Your task to perform on an android device: snooze an email in the gmail app Image 0: 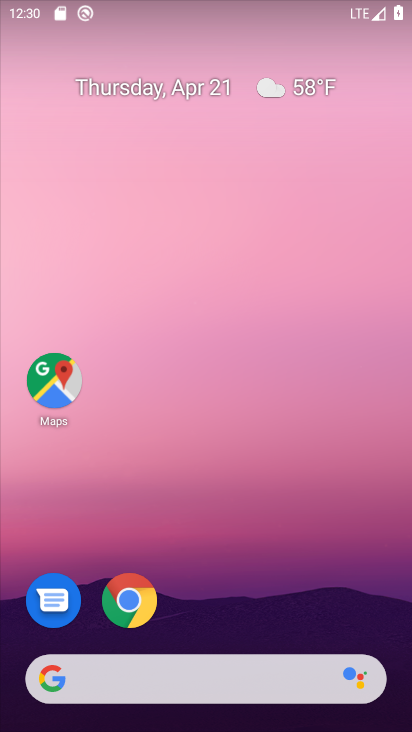
Step 0: drag from (298, 586) to (334, 47)
Your task to perform on an android device: snooze an email in the gmail app Image 1: 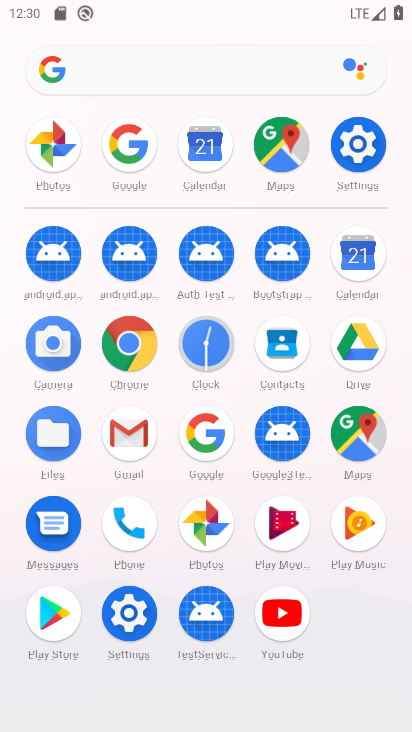
Step 1: click (139, 434)
Your task to perform on an android device: snooze an email in the gmail app Image 2: 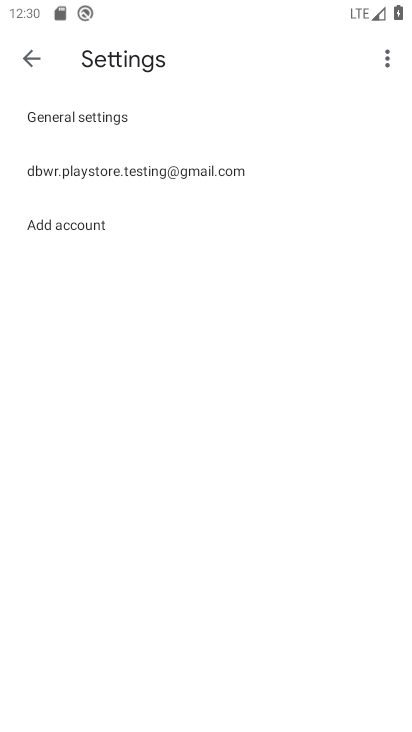
Step 2: click (31, 53)
Your task to perform on an android device: snooze an email in the gmail app Image 3: 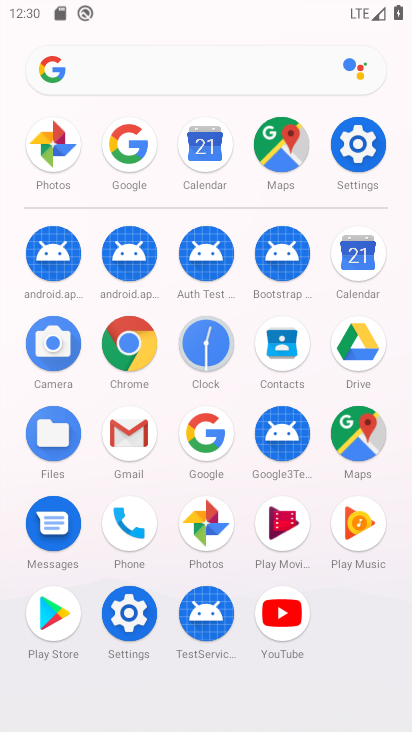
Step 3: click (136, 428)
Your task to perform on an android device: snooze an email in the gmail app Image 4: 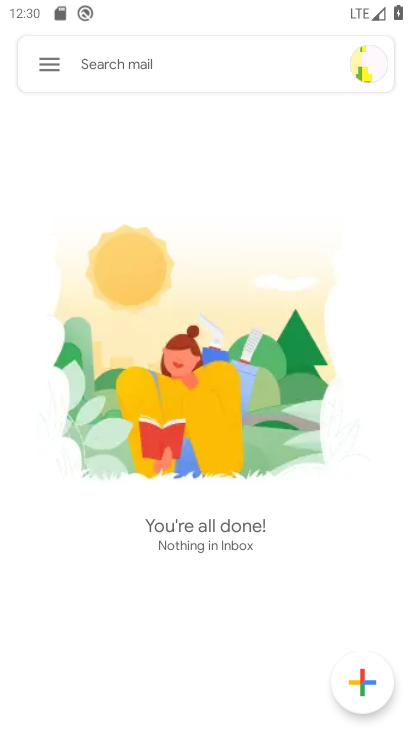
Step 4: click (54, 60)
Your task to perform on an android device: snooze an email in the gmail app Image 5: 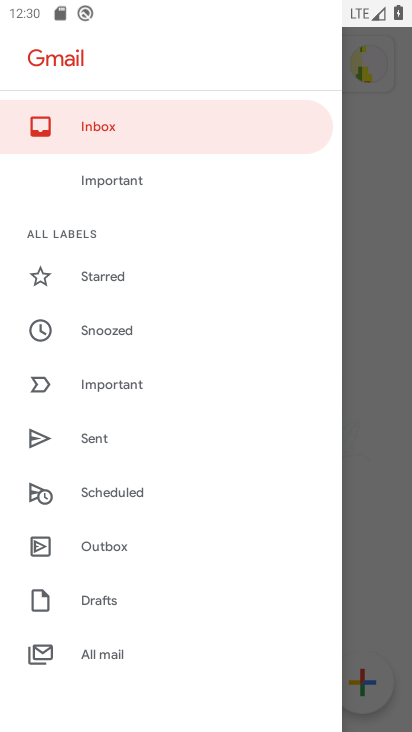
Step 5: click (116, 644)
Your task to perform on an android device: snooze an email in the gmail app Image 6: 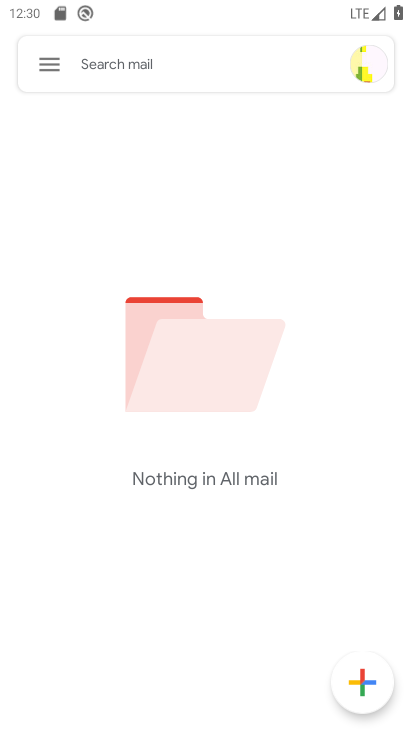
Step 6: task complete